Your task to perform on an android device: change the clock display to analog Image 0: 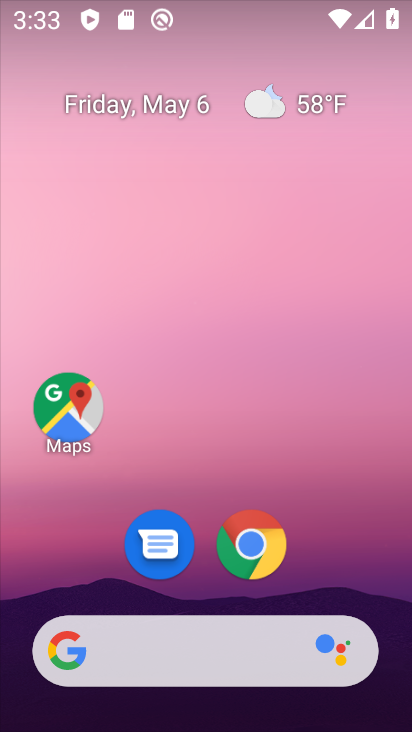
Step 0: drag from (108, 607) to (213, 162)
Your task to perform on an android device: change the clock display to analog Image 1: 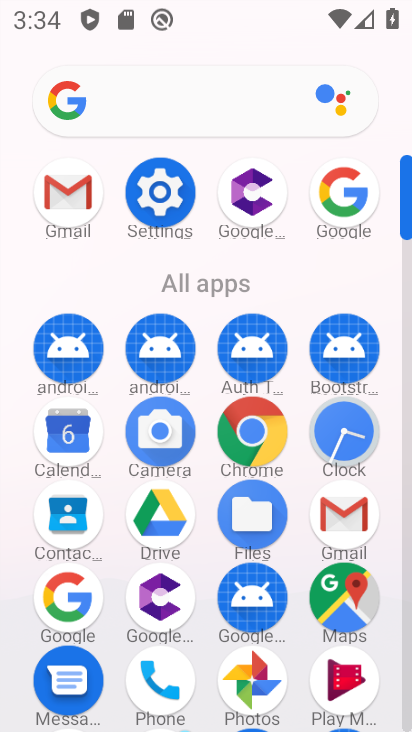
Step 1: click (344, 441)
Your task to perform on an android device: change the clock display to analog Image 2: 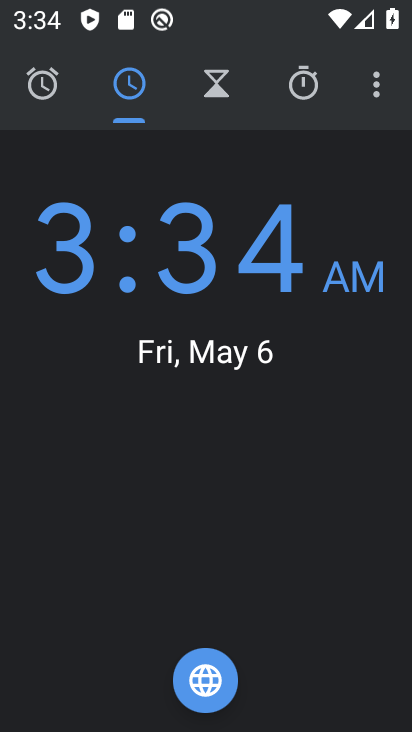
Step 2: click (374, 98)
Your task to perform on an android device: change the clock display to analog Image 3: 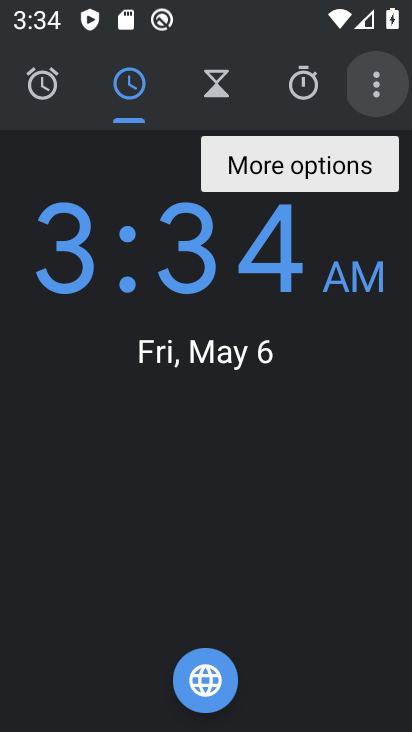
Step 3: click (378, 81)
Your task to perform on an android device: change the clock display to analog Image 4: 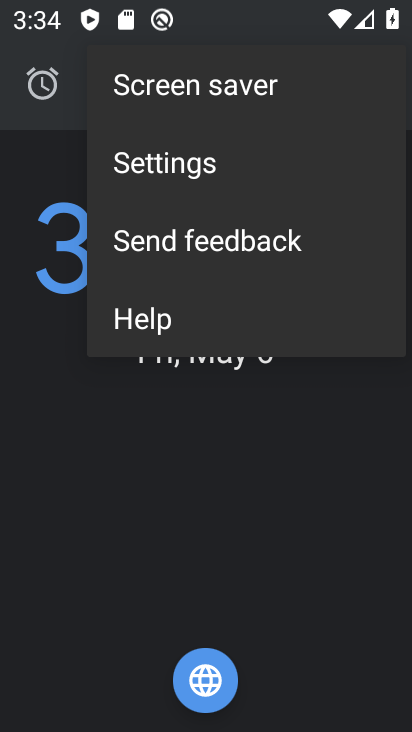
Step 4: click (315, 147)
Your task to perform on an android device: change the clock display to analog Image 5: 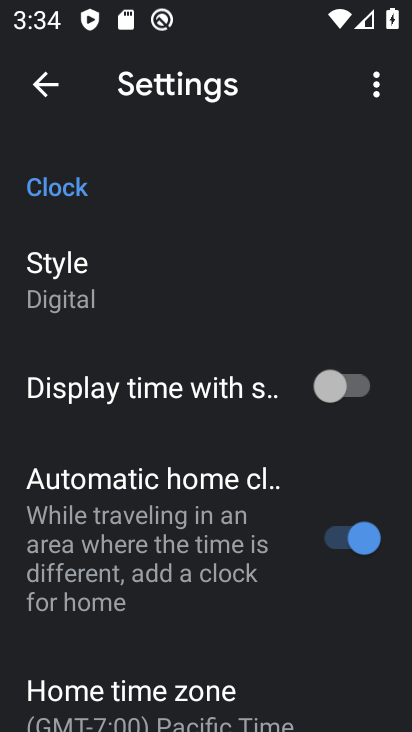
Step 5: click (189, 299)
Your task to perform on an android device: change the clock display to analog Image 6: 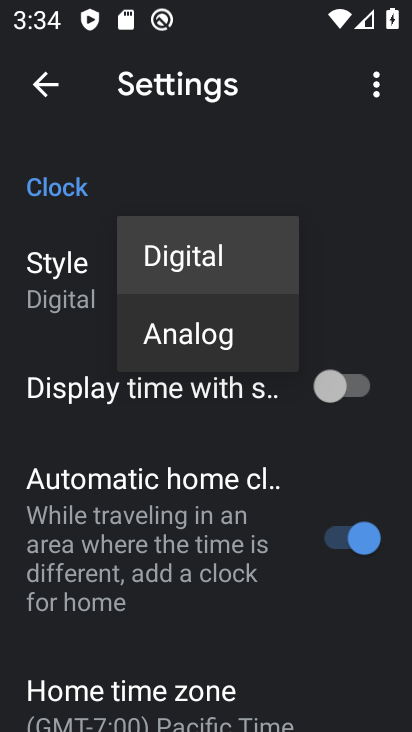
Step 6: click (198, 332)
Your task to perform on an android device: change the clock display to analog Image 7: 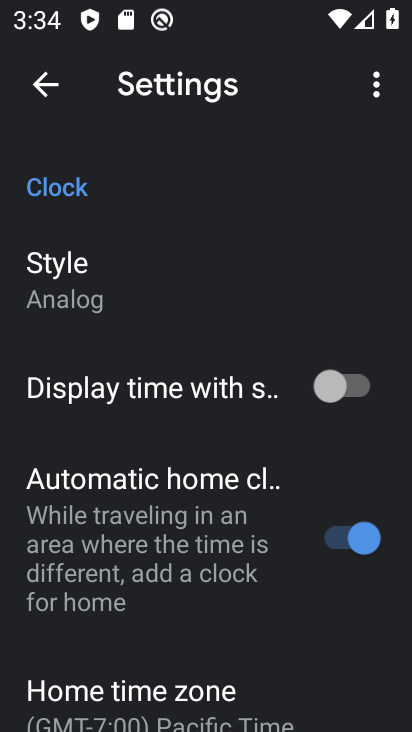
Step 7: task complete